Your task to perform on an android device: Go to internet settings Image 0: 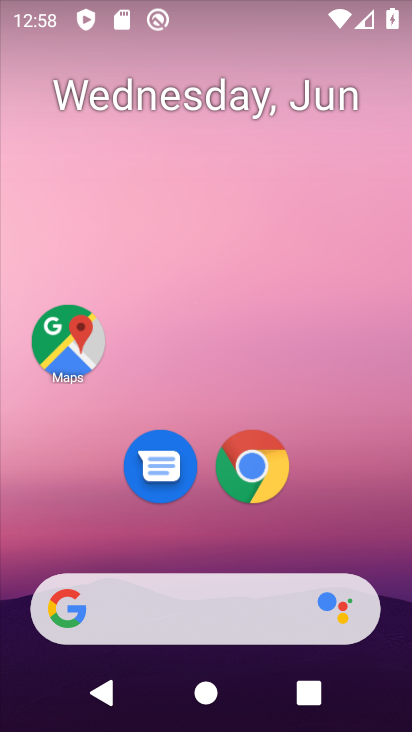
Step 0: drag from (88, 576) to (165, 127)
Your task to perform on an android device: Go to internet settings Image 1: 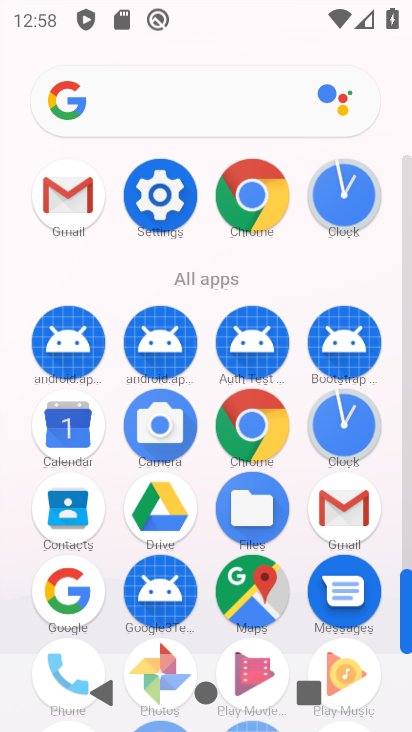
Step 1: drag from (183, 357) to (208, 261)
Your task to perform on an android device: Go to internet settings Image 2: 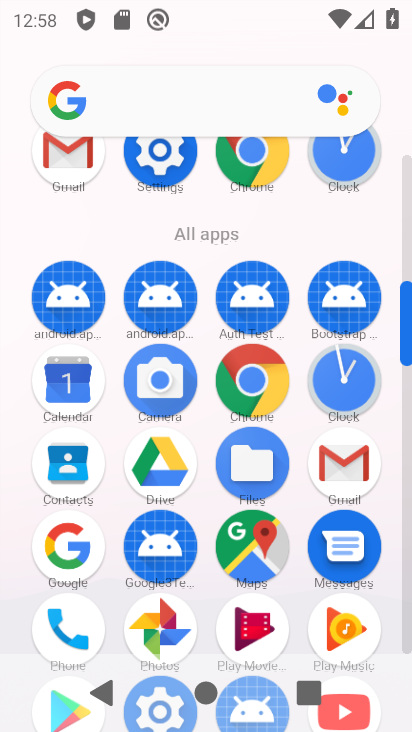
Step 2: drag from (166, 650) to (278, 203)
Your task to perform on an android device: Go to internet settings Image 3: 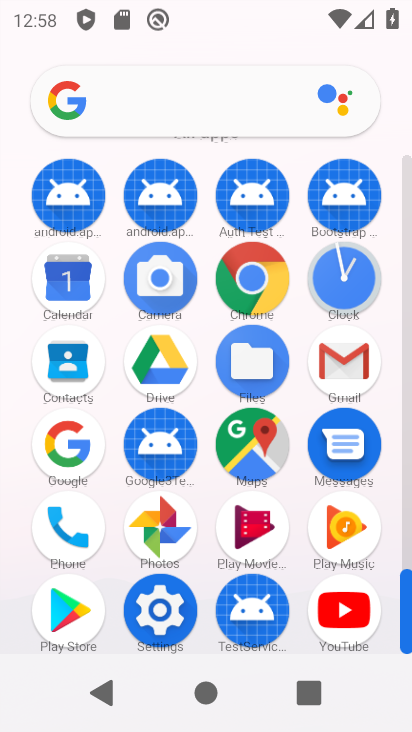
Step 3: click (155, 623)
Your task to perform on an android device: Go to internet settings Image 4: 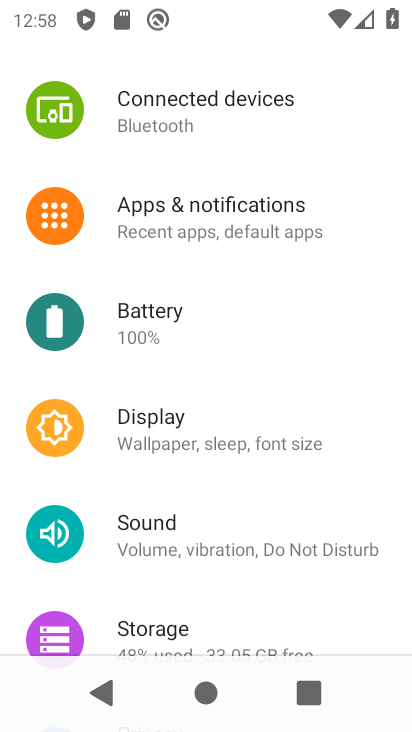
Step 4: drag from (267, 202) to (265, 640)
Your task to perform on an android device: Go to internet settings Image 5: 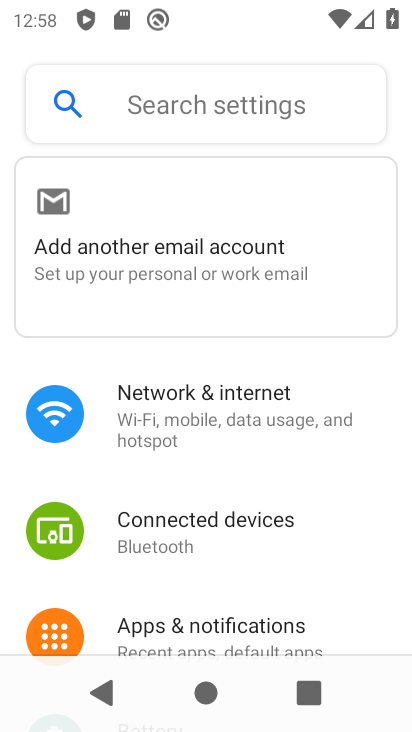
Step 5: click (260, 435)
Your task to perform on an android device: Go to internet settings Image 6: 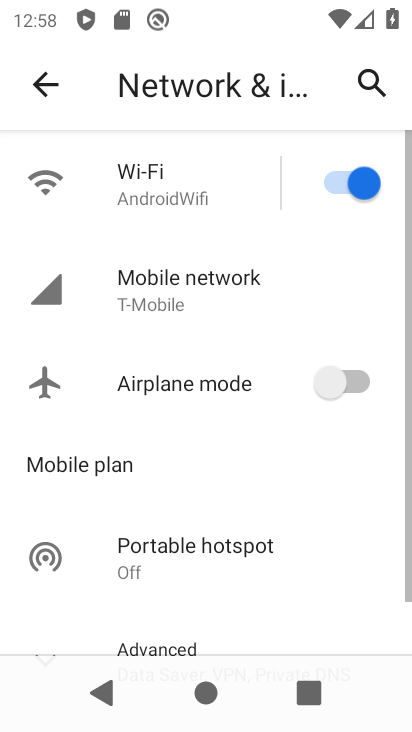
Step 6: click (253, 305)
Your task to perform on an android device: Go to internet settings Image 7: 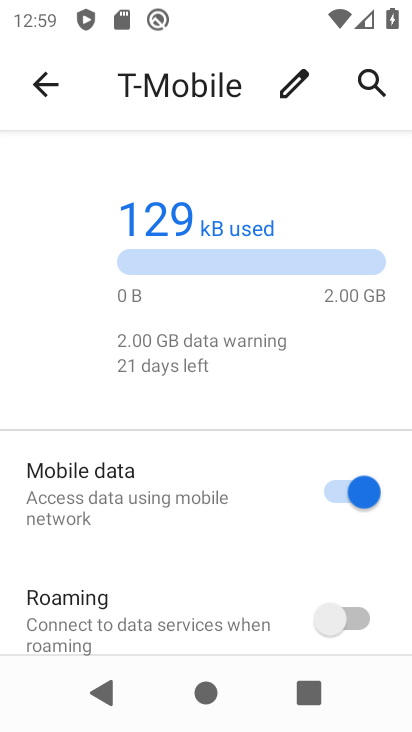
Step 7: task complete